Your task to perform on an android device: Go to Reddit.com Image 0: 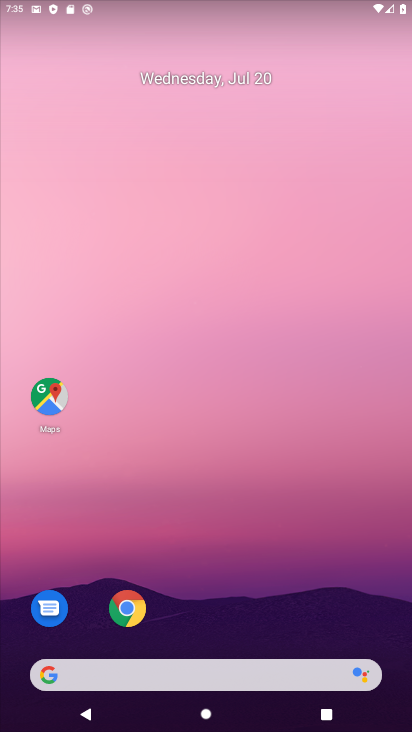
Step 0: click (135, 609)
Your task to perform on an android device: Go to Reddit.com Image 1: 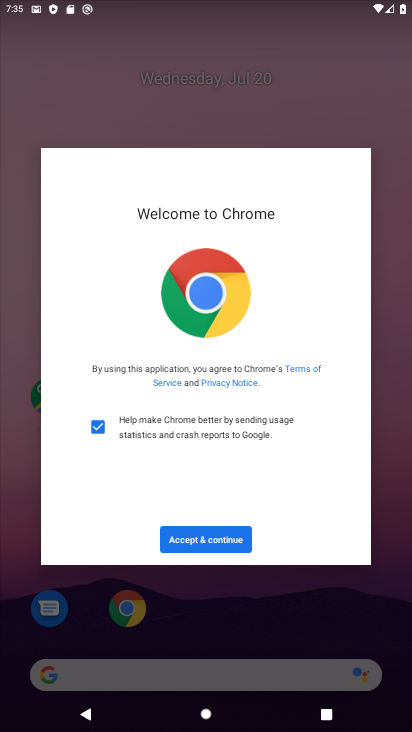
Step 1: click (213, 538)
Your task to perform on an android device: Go to Reddit.com Image 2: 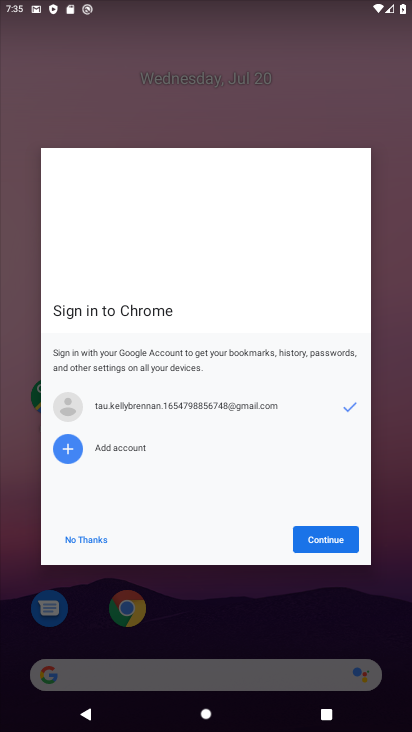
Step 2: click (62, 537)
Your task to perform on an android device: Go to Reddit.com Image 3: 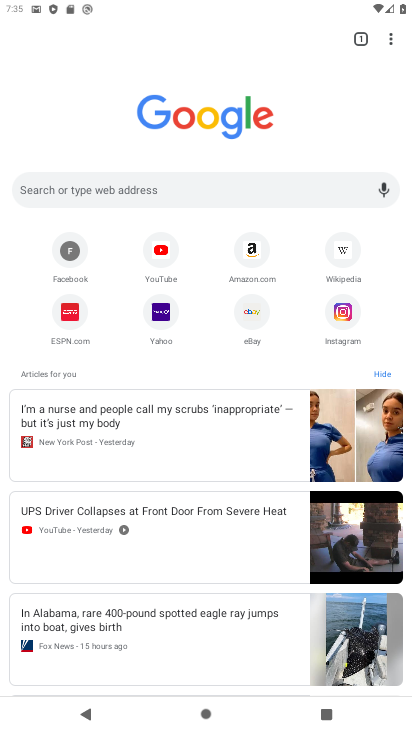
Step 3: click (177, 181)
Your task to perform on an android device: Go to Reddit.com Image 4: 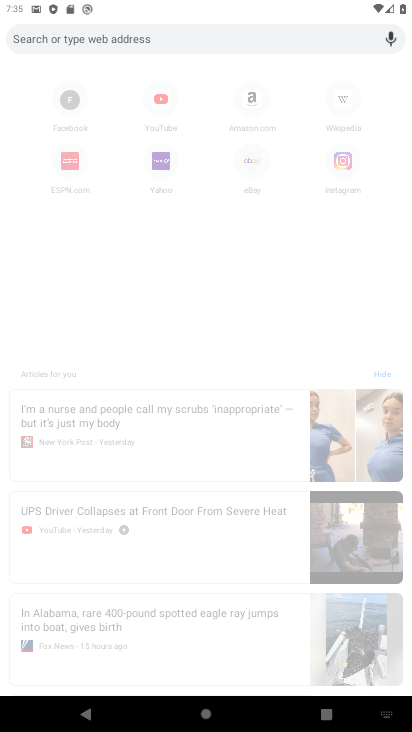
Step 4: type "Reddit.com"
Your task to perform on an android device: Go to Reddit.com Image 5: 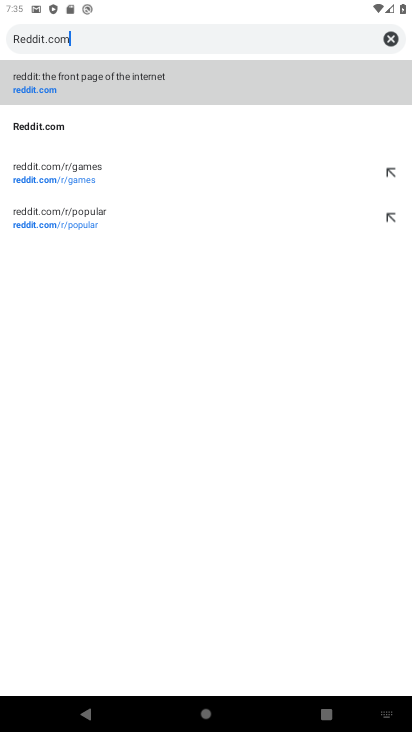
Step 5: type ""
Your task to perform on an android device: Go to Reddit.com Image 6: 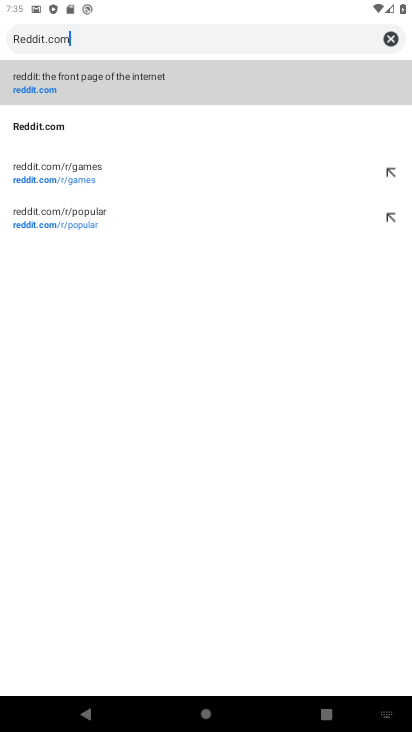
Step 6: click (87, 127)
Your task to perform on an android device: Go to Reddit.com Image 7: 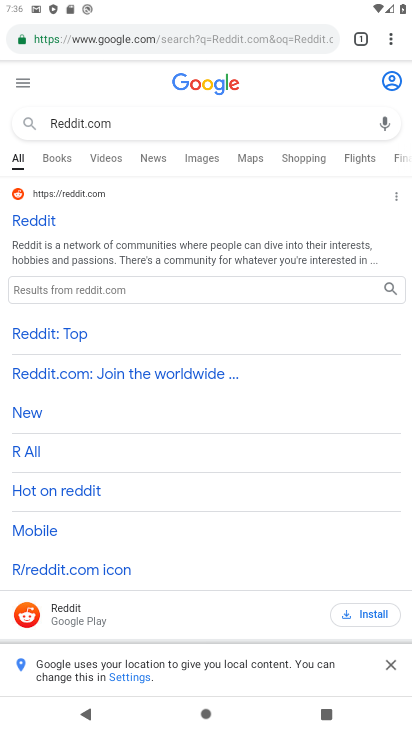
Step 7: click (38, 212)
Your task to perform on an android device: Go to Reddit.com Image 8: 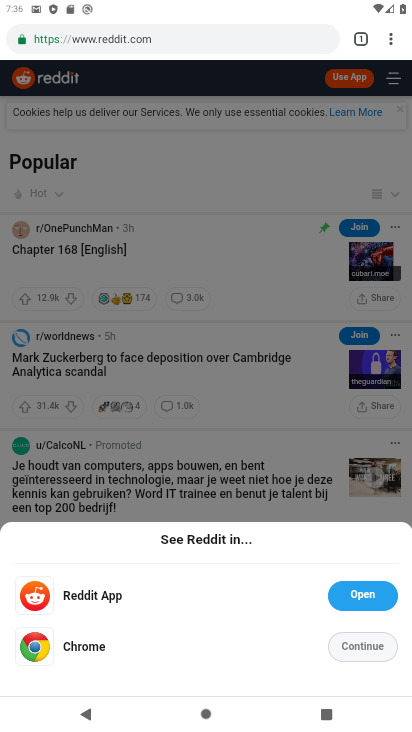
Step 8: task complete